Your task to perform on an android device: change your default location settings in chrome Image 0: 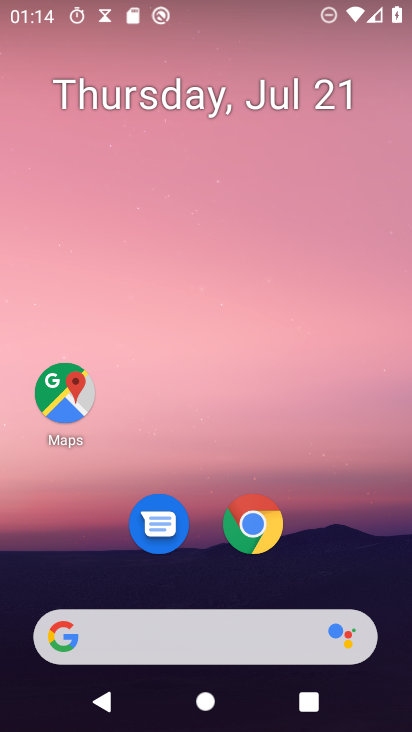
Step 0: click (257, 525)
Your task to perform on an android device: change your default location settings in chrome Image 1: 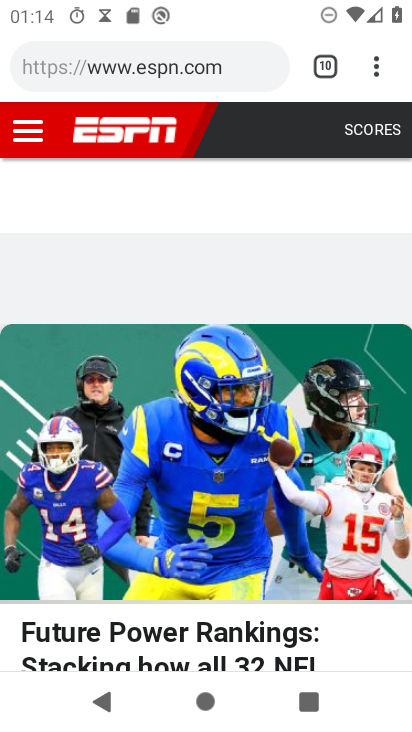
Step 1: drag from (378, 65) to (208, 517)
Your task to perform on an android device: change your default location settings in chrome Image 2: 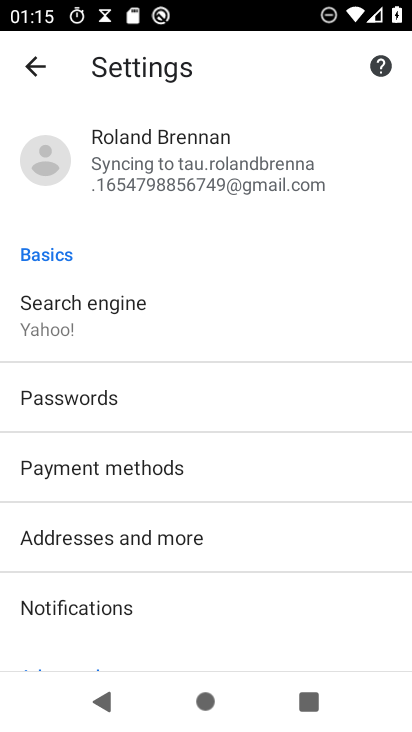
Step 2: drag from (172, 601) to (245, 332)
Your task to perform on an android device: change your default location settings in chrome Image 3: 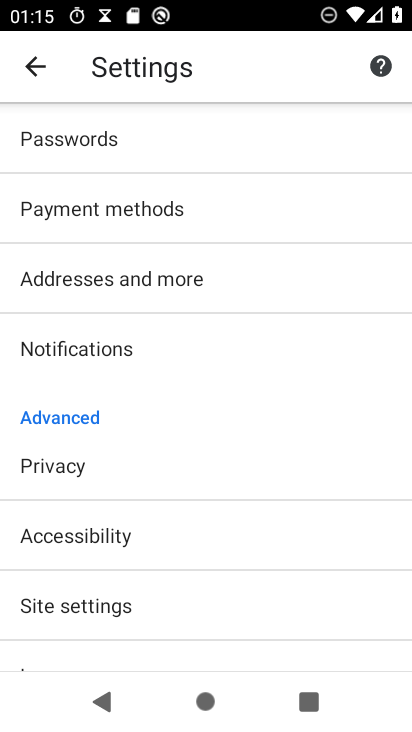
Step 3: click (88, 597)
Your task to perform on an android device: change your default location settings in chrome Image 4: 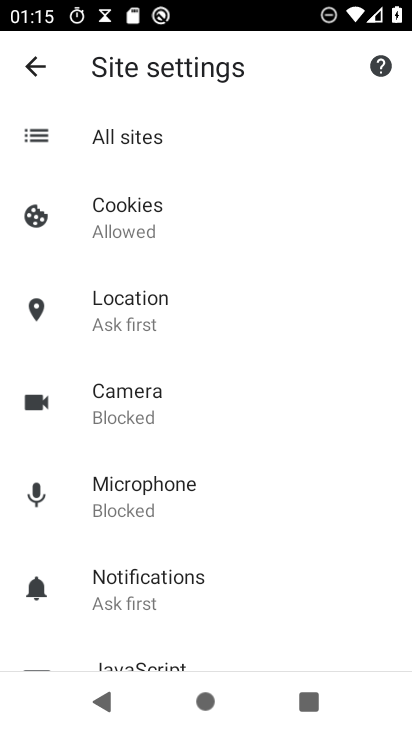
Step 4: click (130, 302)
Your task to perform on an android device: change your default location settings in chrome Image 5: 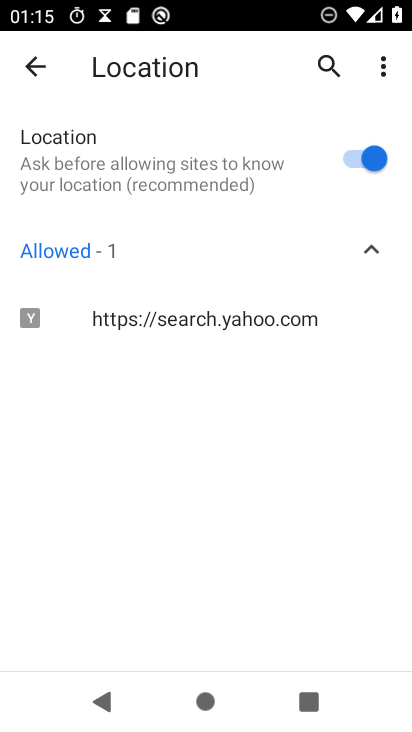
Step 5: click (353, 156)
Your task to perform on an android device: change your default location settings in chrome Image 6: 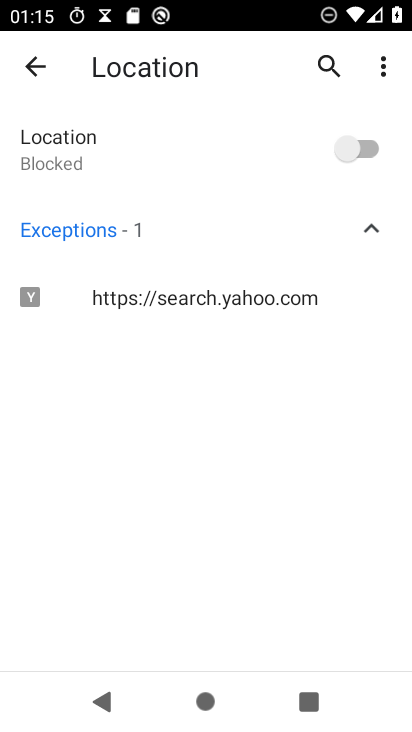
Step 6: task complete